Your task to perform on an android device: open device folders in google photos Image 0: 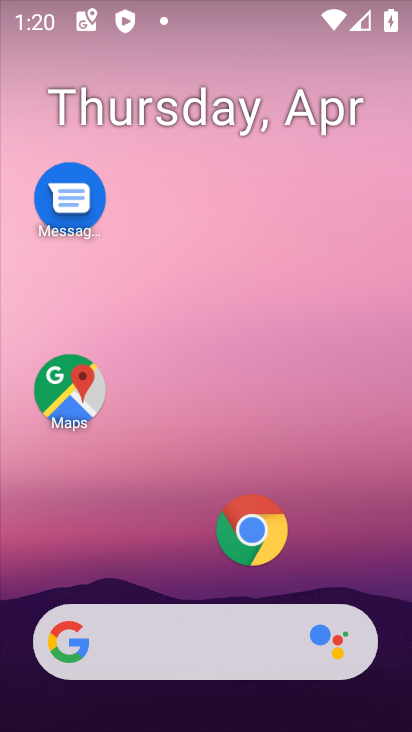
Step 0: drag from (188, 593) to (310, 3)
Your task to perform on an android device: open device folders in google photos Image 1: 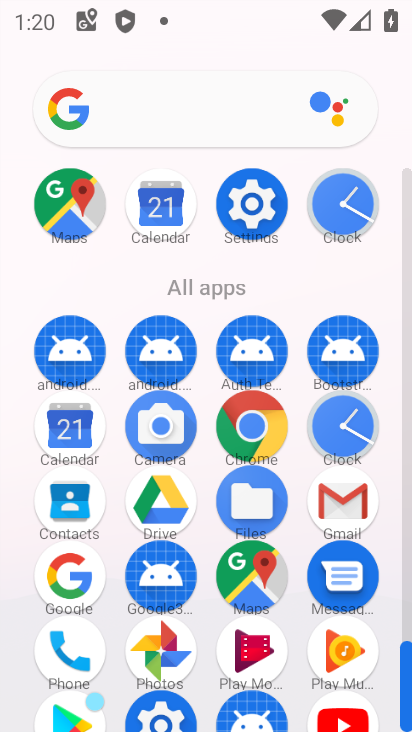
Step 1: click (163, 665)
Your task to perform on an android device: open device folders in google photos Image 2: 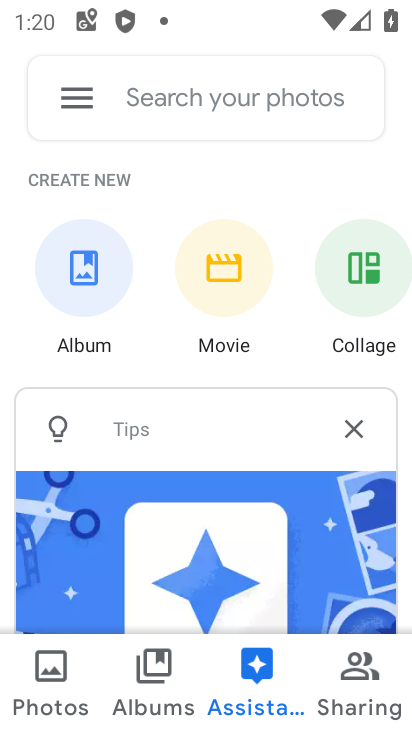
Step 2: click (65, 109)
Your task to perform on an android device: open device folders in google photos Image 3: 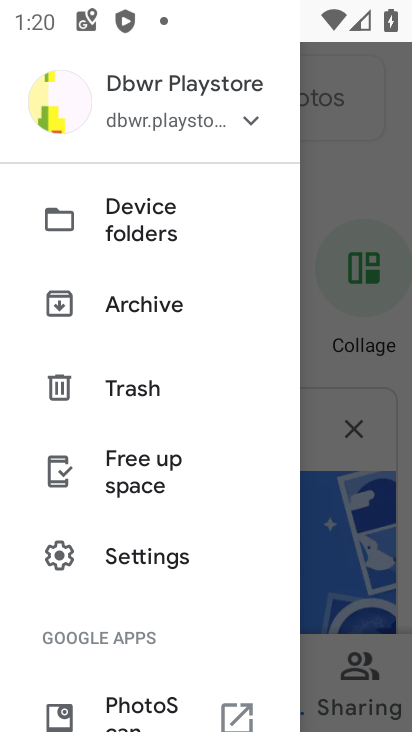
Step 3: click (115, 239)
Your task to perform on an android device: open device folders in google photos Image 4: 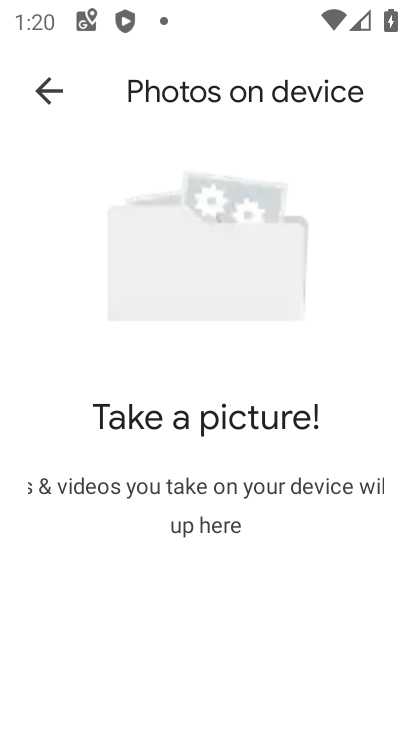
Step 4: task complete